Your task to perform on an android device: toggle data saver in the chrome app Image 0: 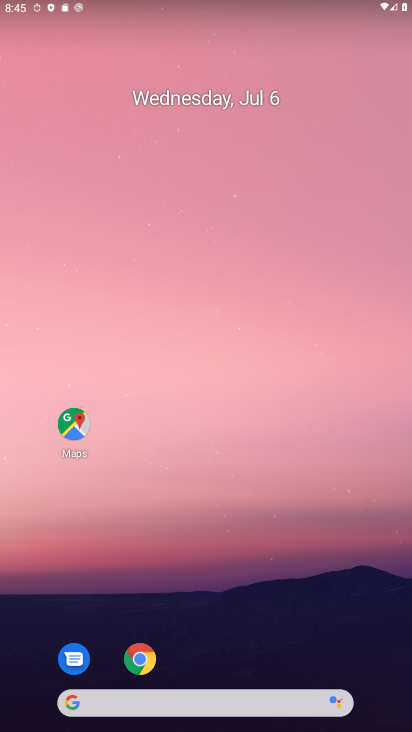
Step 0: drag from (266, 619) to (291, 307)
Your task to perform on an android device: toggle data saver in the chrome app Image 1: 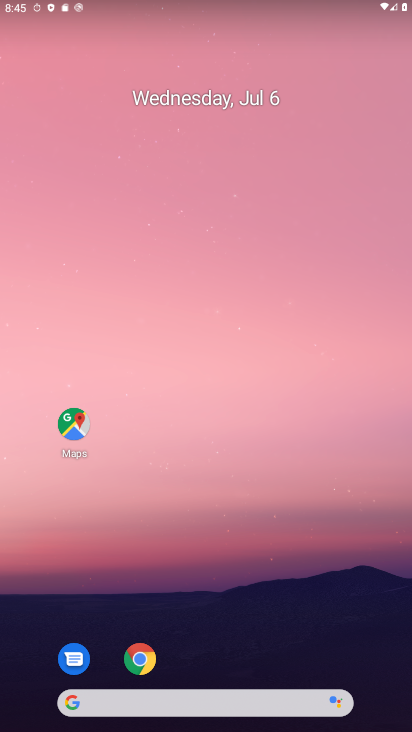
Step 1: drag from (325, 605) to (327, 212)
Your task to perform on an android device: toggle data saver in the chrome app Image 2: 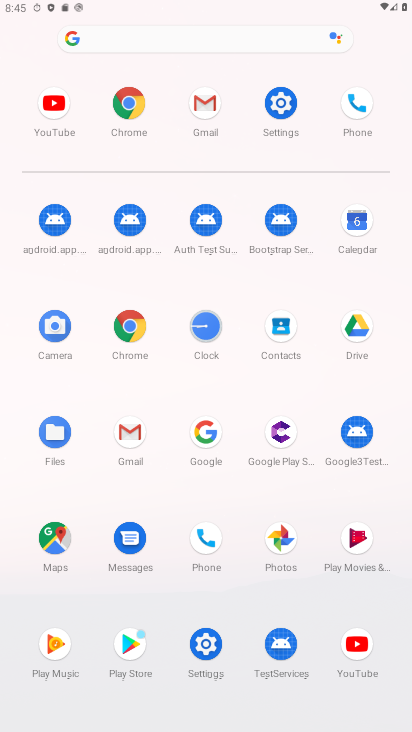
Step 2: click (136, 340)
Your task to perform on an android device: toggle data saver in the chrome app Image 3: 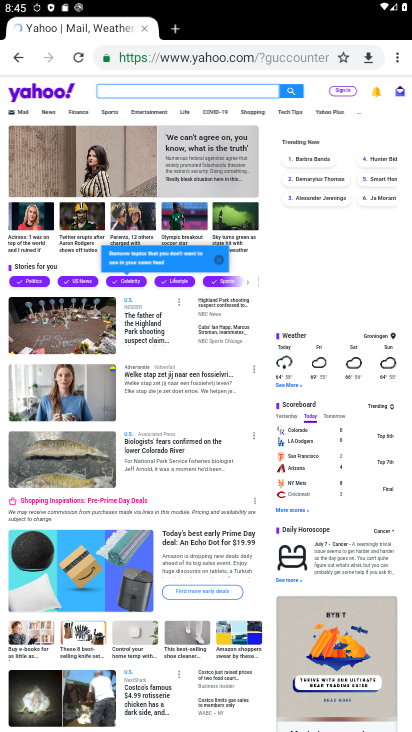
Step 3: click (393, 58)
Your task to perform on an android device: toggle data saver in the chrome app Image 4: 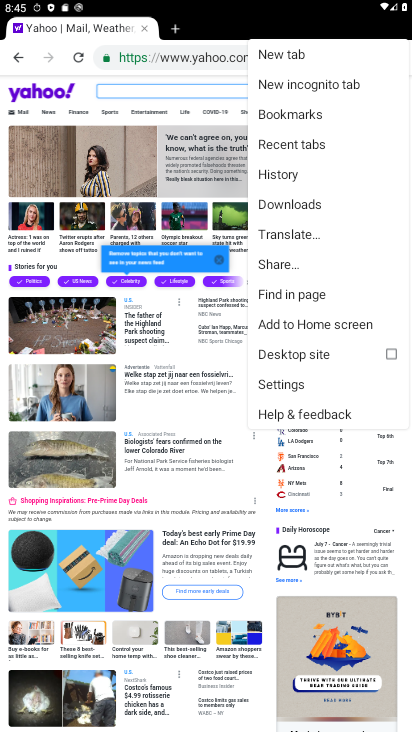
Step 4: click (312, 379)
Your task to perform on an android device: toggle data saver in the chrome app Image 5: 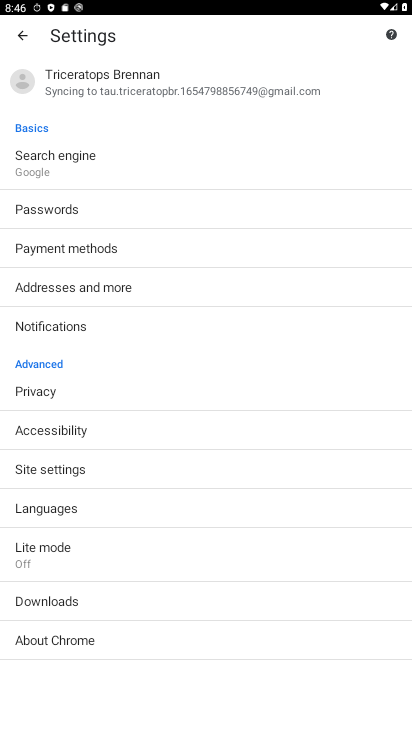
Step 5: drag from (307, 482) to (311, 337)
Your task to perform on an android device: toggle data saver in the chrome app Image 6: 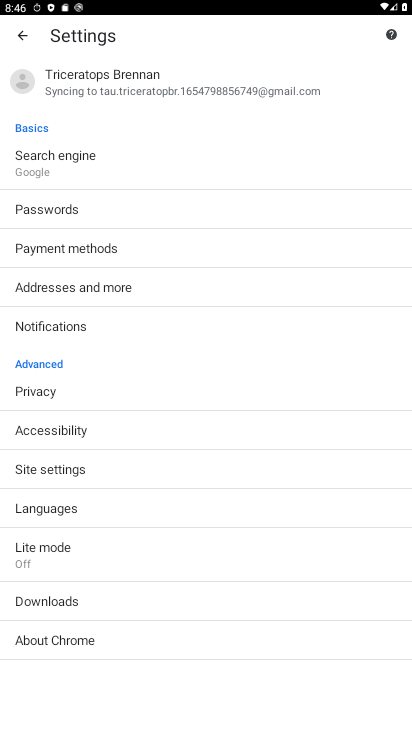
Step 6: click (92, 555)
Your task to perform on an android device: toggle data saver in the chrome app Image 7: 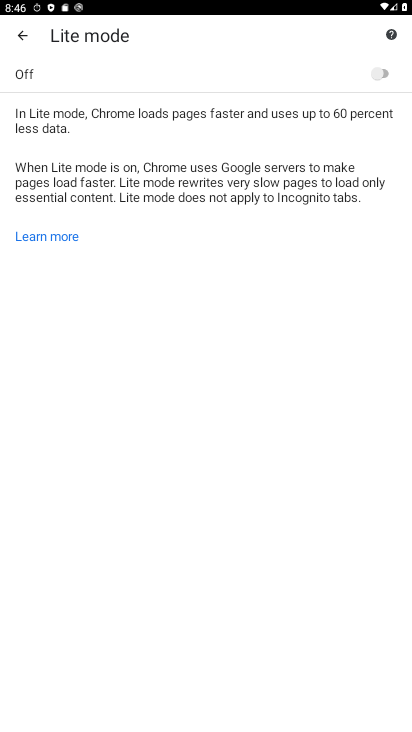
Step 7: click (367, 64)
Your task to perform on an android device: toggle data saver in the chrome app Image 8: 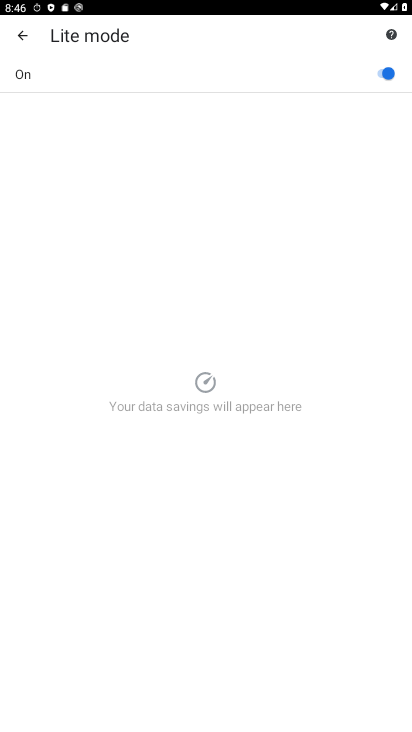
Step 8: task complete